Your task to perform on an android device: stop showing notifications on the lock screen Image 0: 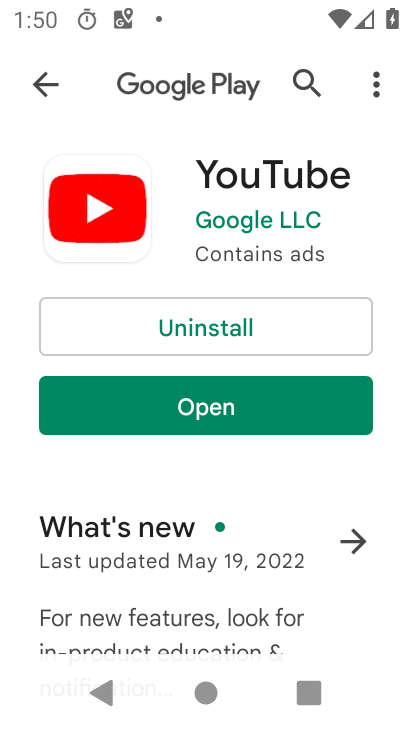
Step 0: press home button
Your task to perform on an android device: stop showing notifications on the lock screen Image 1: 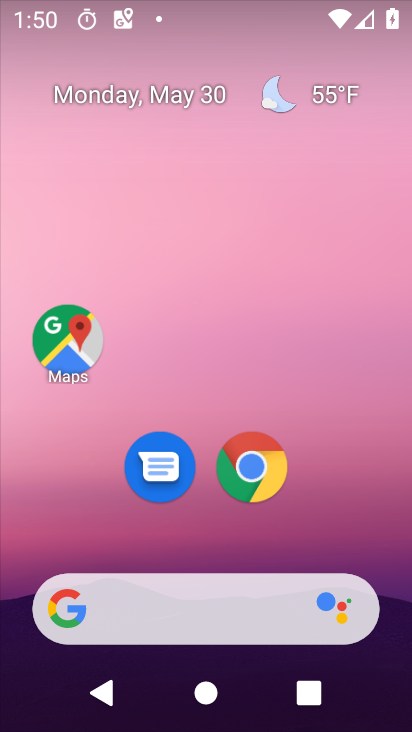
Step 1: drag from (392, 699) to (377, 261)
Your task to perform on an android device: stop showing notifications on the lock screen Image 2: 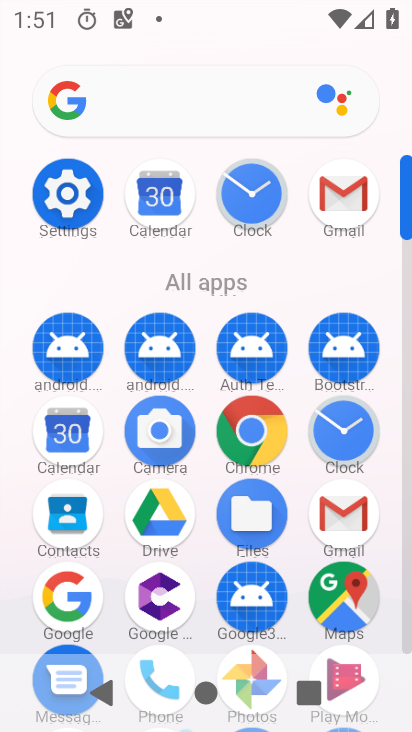
Step 2: click (68, 203)
Your task to perform on an android device: stop showing notifications on the lock screen Image 3: 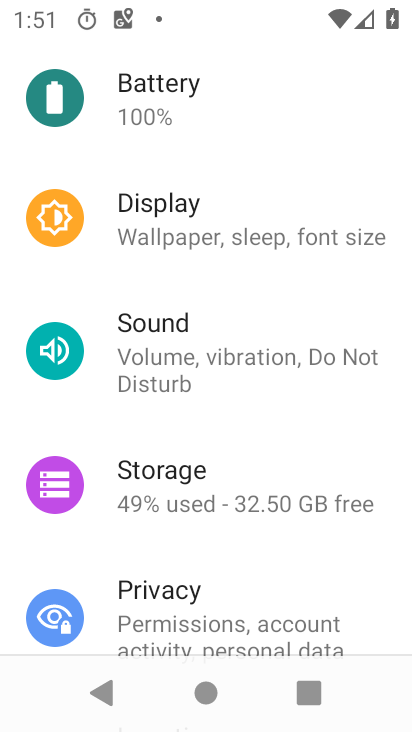
Step 3: drag from (272, 107) to (307, 612)
Your task to perform on an android device: stop showing notifications on the lock screen Image 4: 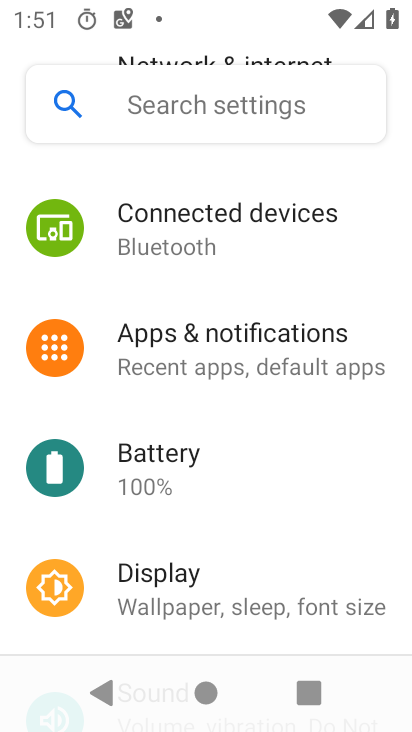
Step 4: click (149, 362)
Your task to perform on an android device: stop showing notifications on the lock screen Image 5: 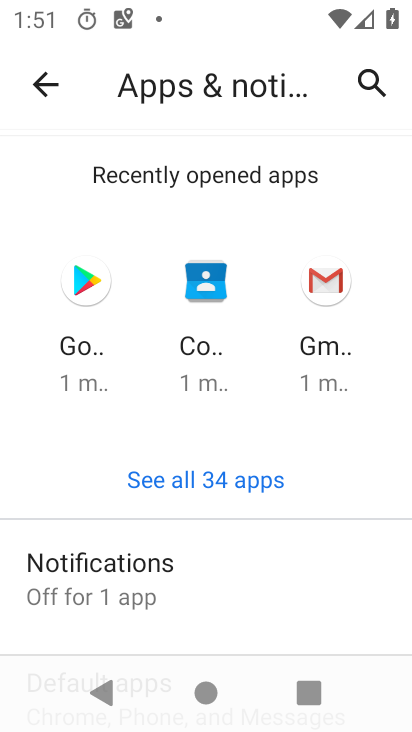
Step 5: click (99, 576)
Your task to perform on an android device: stop showing notifications on the lock screen Image 6: 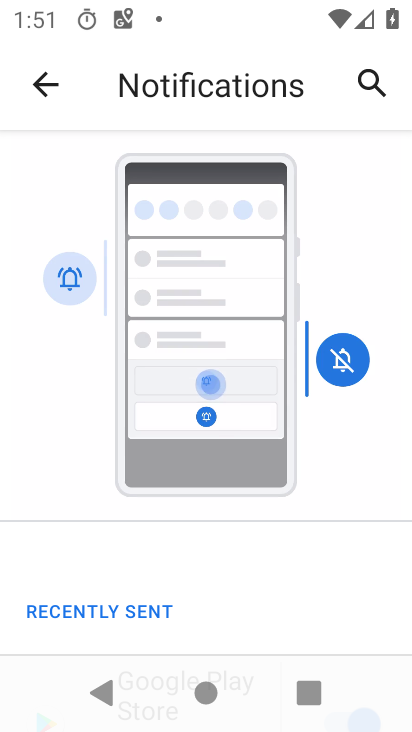
Step 6: drag from (256, 615) to (259, 318)
Your task to perform on an android device: stop showing notifications on the lock screen Image 7: 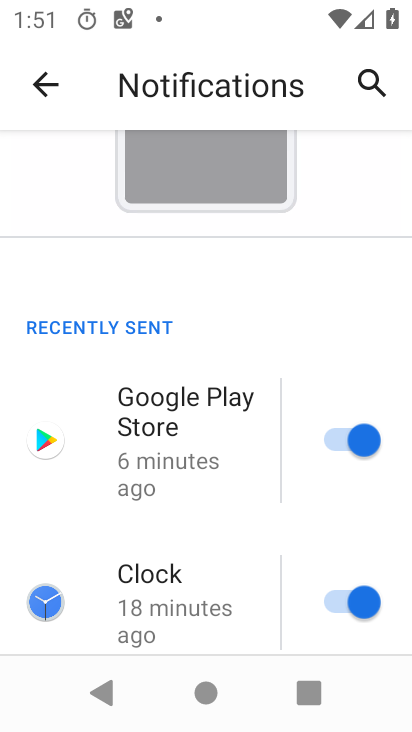
Step 7: drag from (263, 593) to (282, 341)
Your task to perform on an android device: stop showing notifications on the lock screen Image 8: 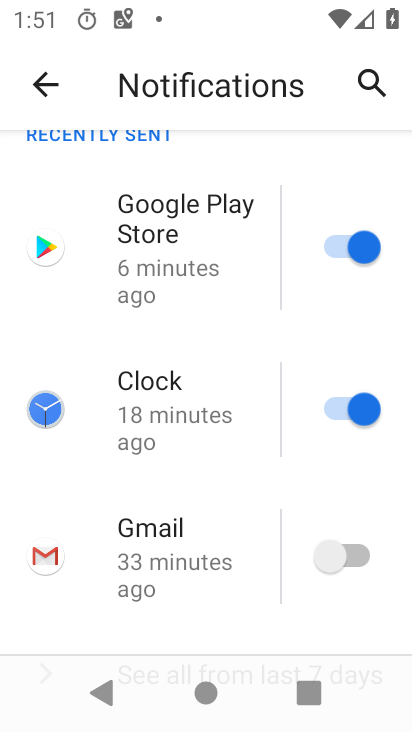
Step 8: click (244, 403)
Your task to perform on an android device: stop showing notifications on the lock screen Image 9: 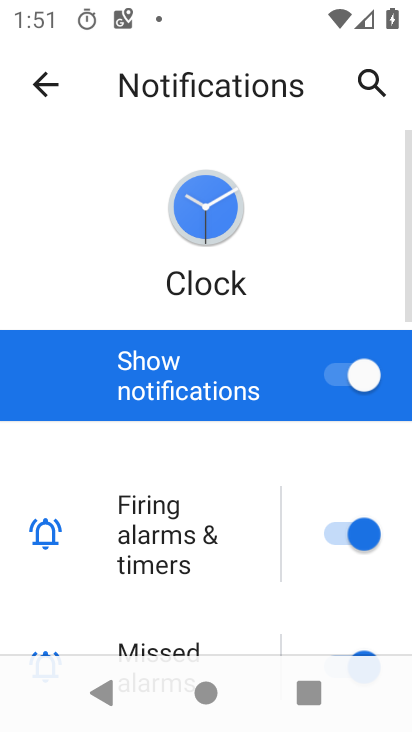
Step 9: click (38, 76)
Your task to perform on an android device: stop showing notifications on the lock screen Image 10: 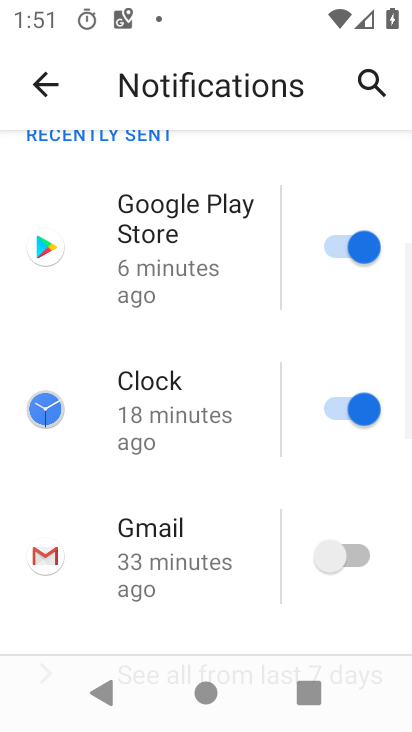
Step 10: drag from (227, 604) to (239, 212)
Your task to perform on an android device: stop showing notifications on the lock screen Image 11: 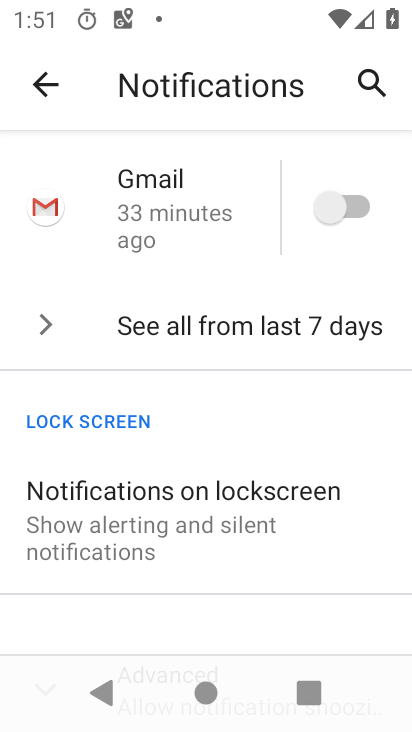
Step 11: click (139, 504)
Your task to perform on an android device: stop showing notifications on the lock screen Image 12: 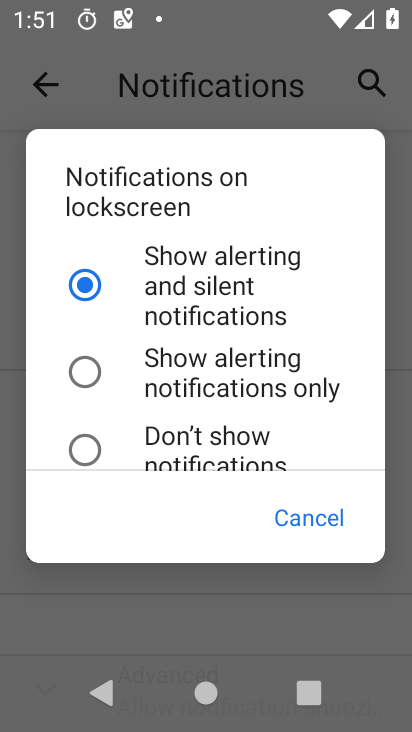
Step 12: click (80, 440)
Your task to perform on an android device: stop showing notifications on the lock screen Image 13: 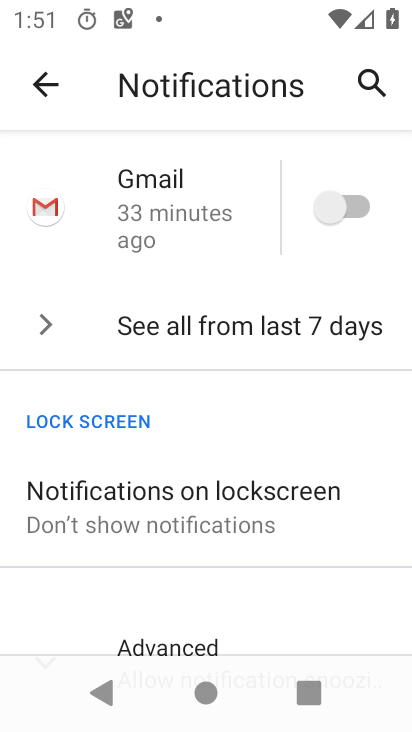
Step 13: task complete